Your task to perform on an android device: Go to settings Image 0: 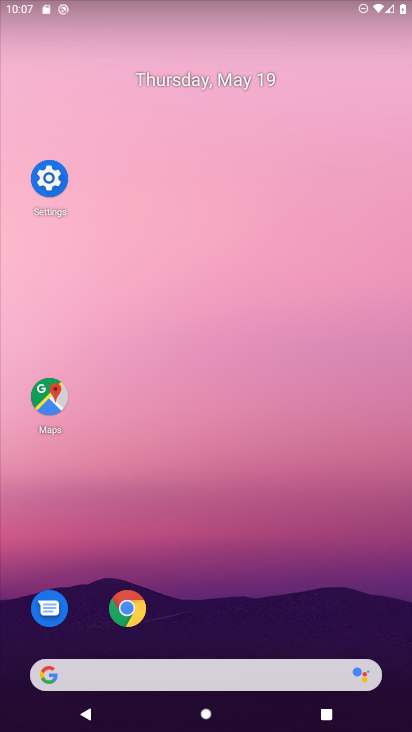
Step 0: click (53, 169)
Your task to perform on an android device: Go to settings Image 1: 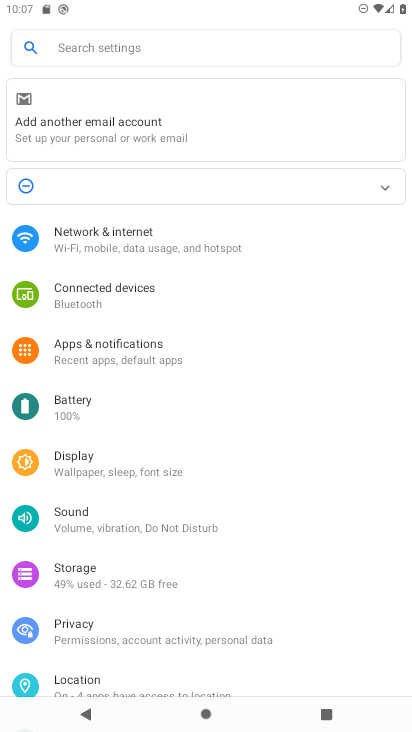
Step 1: task complete